Your task to perform on an android device: Show me the best 1080p monitor on Target.com Image 0: 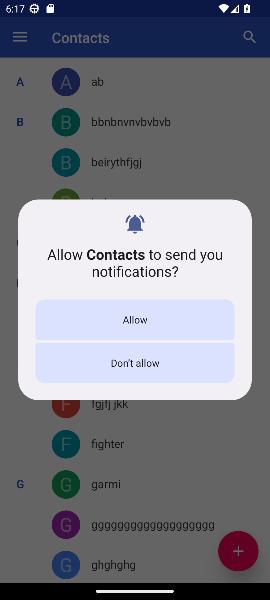
Step 0: press home button
Your task to perform on an android device: Show me the best 1080p monitor on Target.com Image 1: 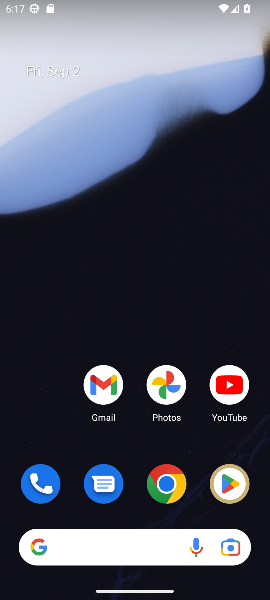
Step 1: click (163, 477)
Your task to perform on an android device: Show me the best 1080p monitor on Target.com Image 2: 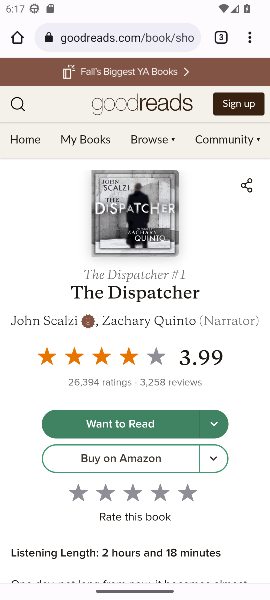
Step 2: click (158, 39)
Your task to perform on an android device: Show me the best 1080p monitor on Target.com Image 3: 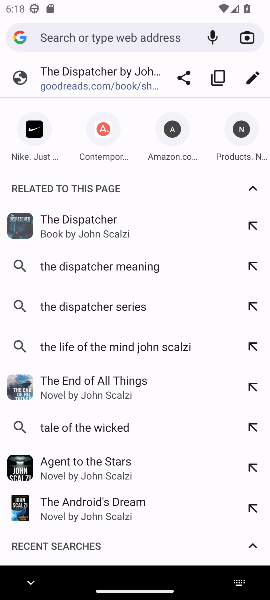
Step 3: type "Target.com"
Your task to perform on an android device: Show me the best 1080p monitor on Target.com Image 4: 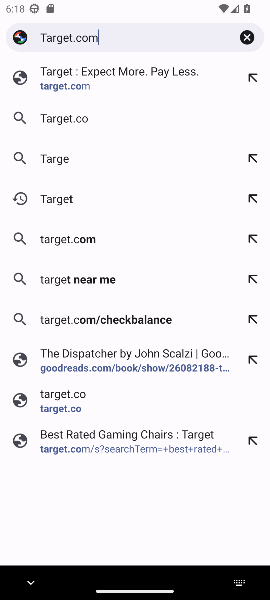
Step 4: press enter
Your task to perform on an android device: Show me the best 1080p monitor on Target.com Image 5: 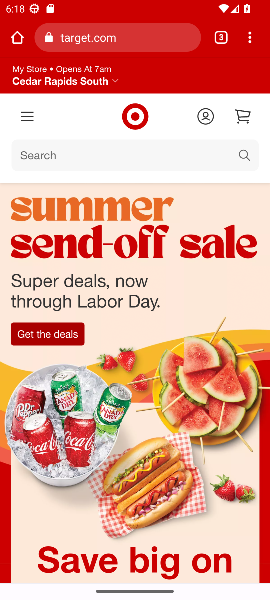
Step 5: click (239, 154)
Your task to perform on an android device: Show me the best 1080p monitor on Target.com Image 6: 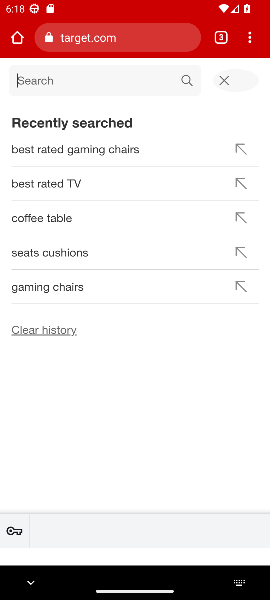
Step 6: type "1080p monitor"
Your task to perform on an android device: Show me the best 1080p monitor on Target.com Image 7: 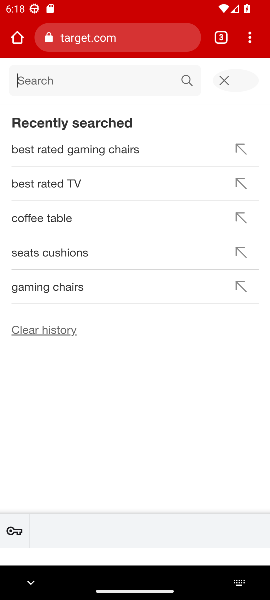
Step 7: press enter
Your task to perform on an android device: Show me the best 1080p monitor on Target.com Image 8: 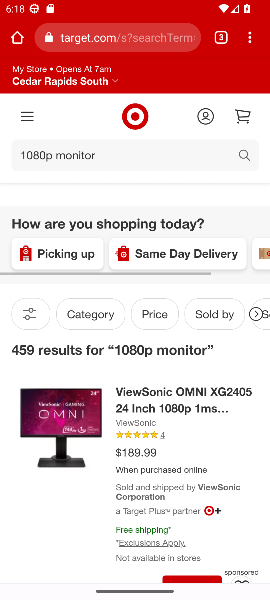
Step 8: task complete